Your task to perform on an android device: Open Chrome and go to the settings page Image 0: 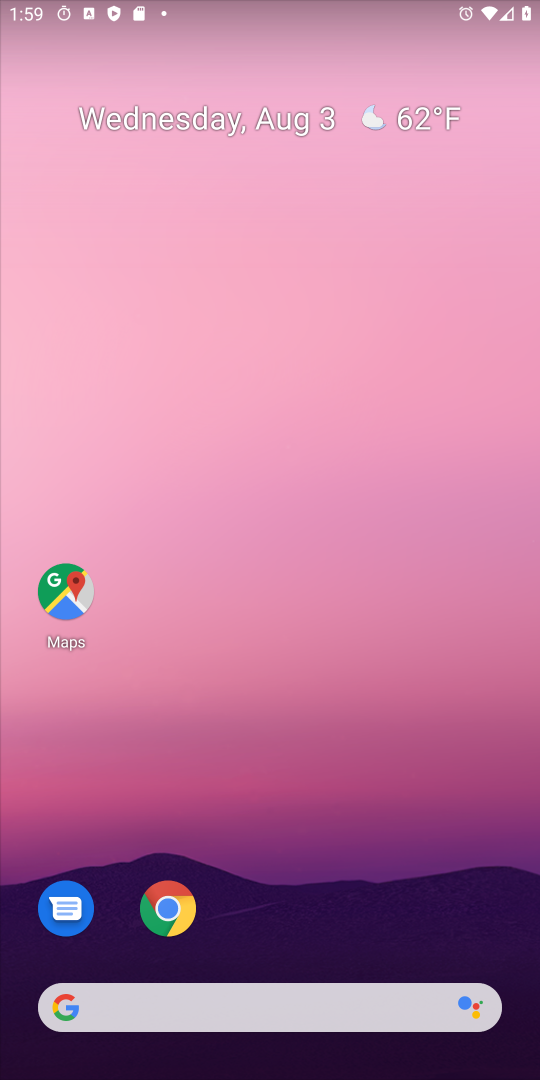
Step 0: drag from (308, 844) to (529, 227)
Your task to perform on an android device: Open Chrome and go to the settings page Image 1: 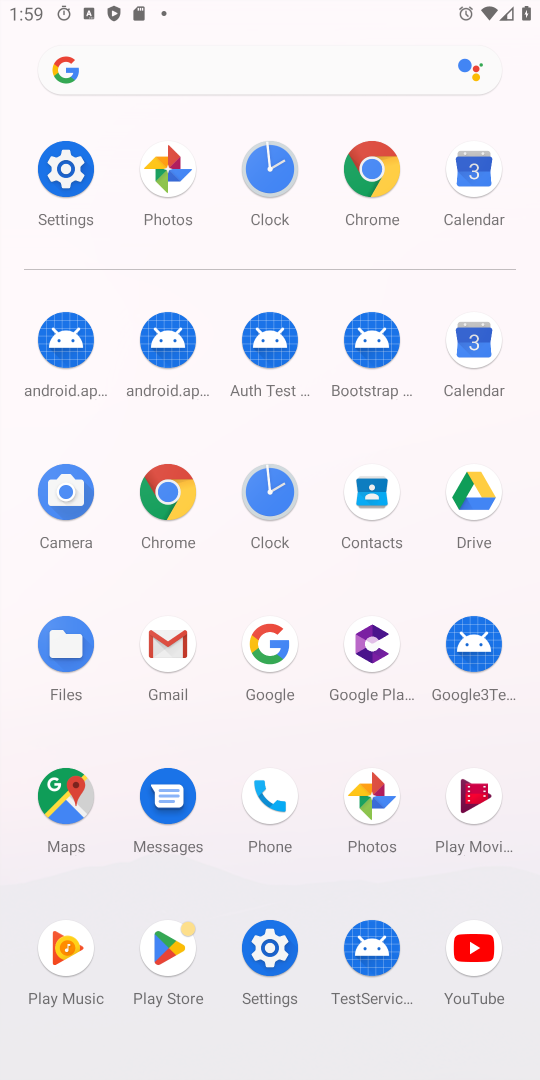
Step 1: click (171, 628)
Your task to perform on an android device: Open Chrome and go to the settings page Image 2: 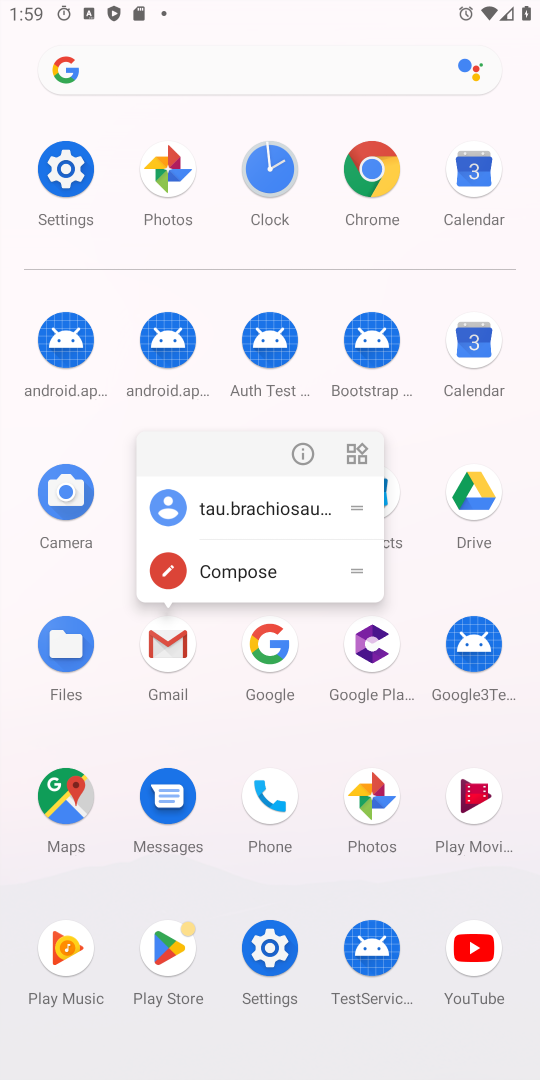
Step 2: click (233, 739)
Your task to perform on an android device: Open Chrome and go to the settings page Image 3: 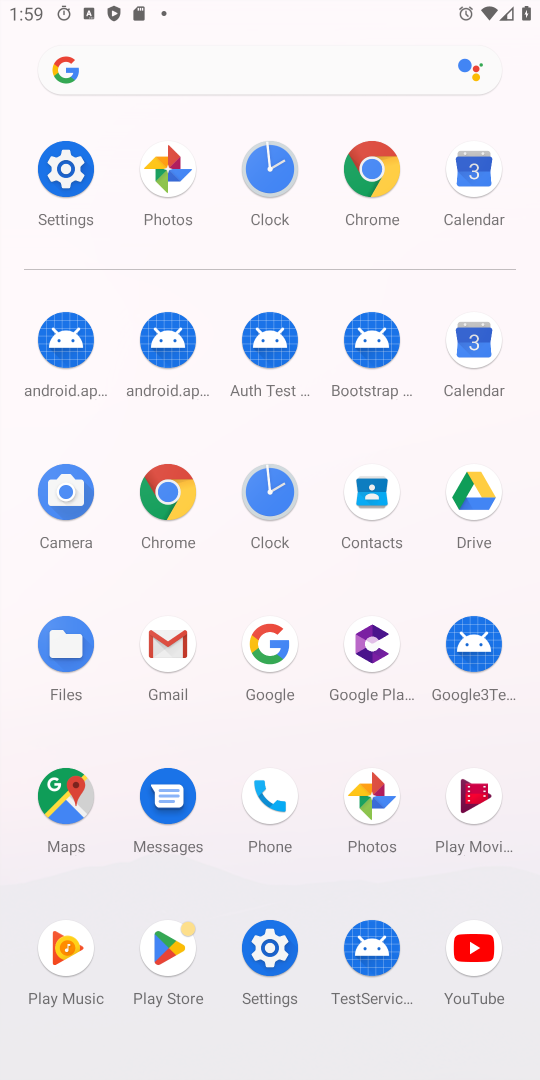
Step 3: click (181, 500)
Your task to perform on an android device: Open Chrome and go to the settings page Image 4: 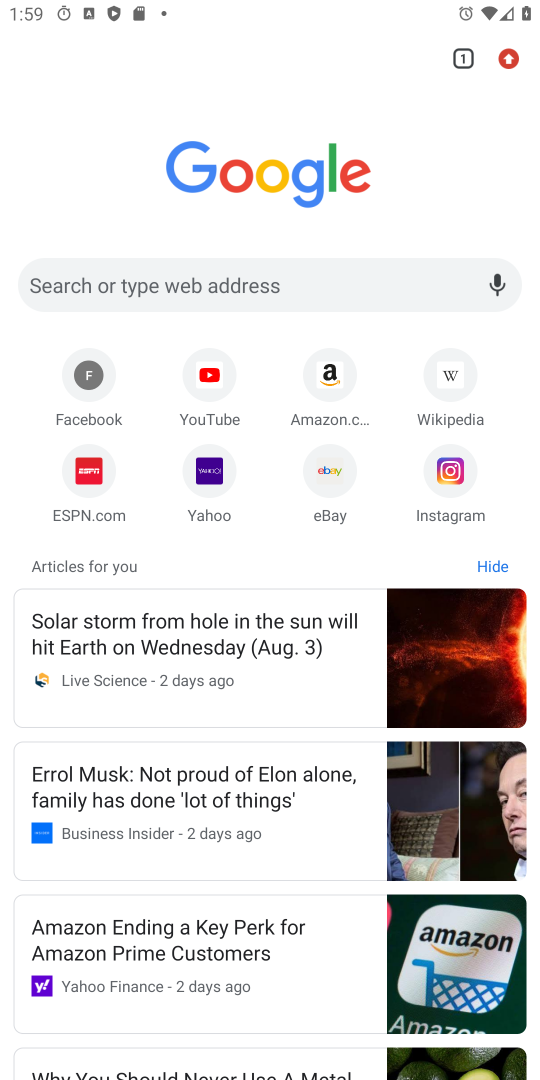
Step 4: click (508, 69)
Your task to perform on an android device: Open Chrome and go to the settings page Image 5: 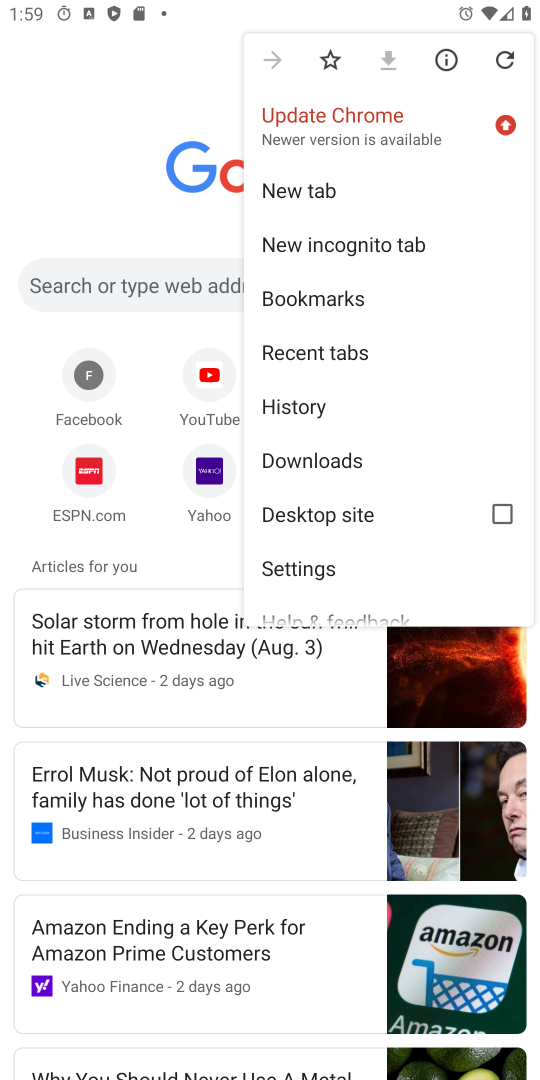
Step 5: click (314, 567)
Your task to perform on an android device: Open Chrome and go to the settings page Image 6: 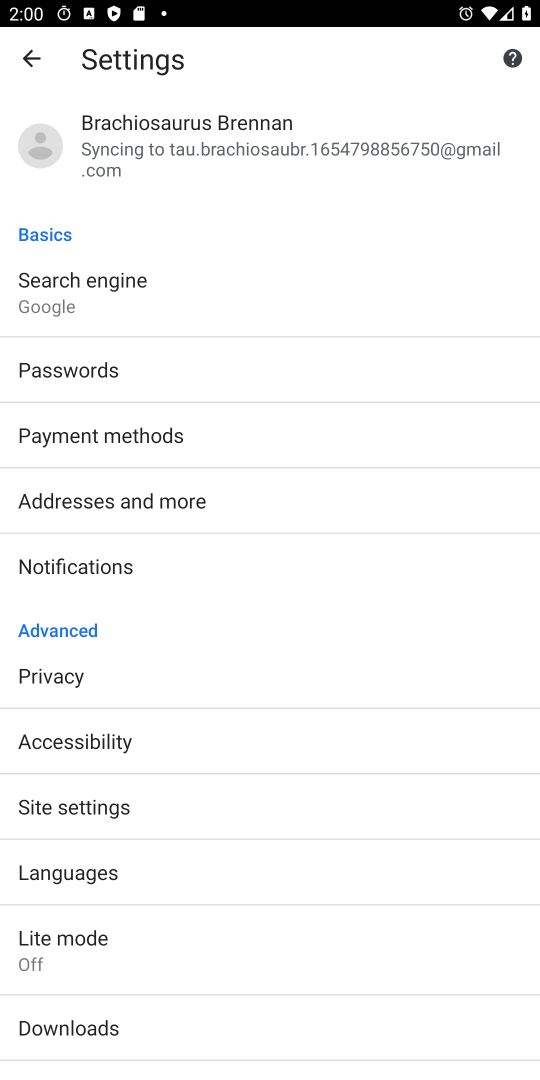
Step 6: task complete